Your task to perform on an android device: toggle notification dots Image 0: 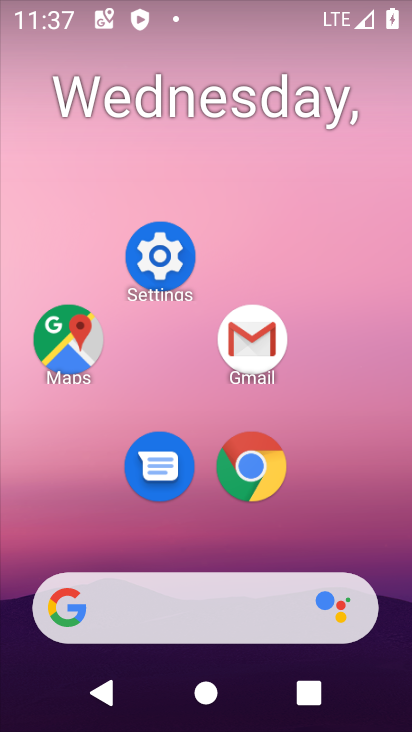
Step 0: drag from (201, 465) to (306, 731)
Your task to perform on an android device: toggle notification dots Image 1: 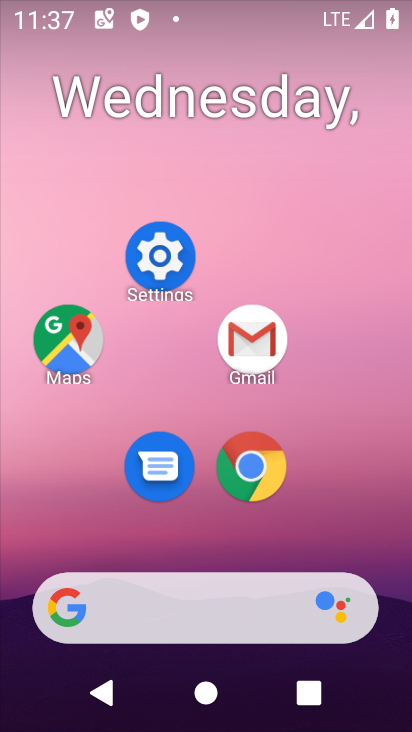
Step 1: click (151, 252)
Your task to perform on an android device: toggle notification dots Image 2: 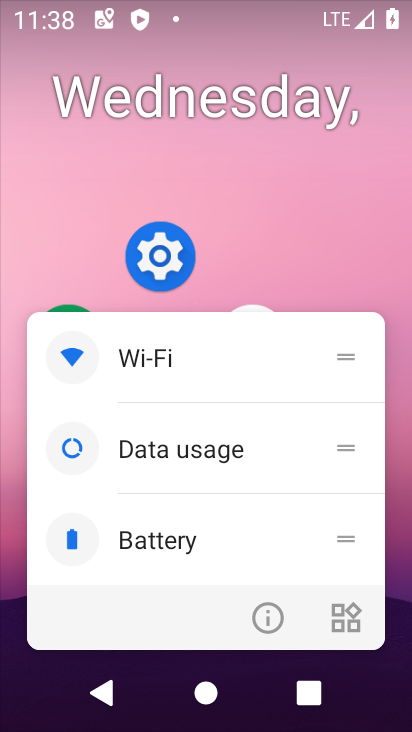
Step 2: click (266, 600)
Your task to perform on an android device: toggle notification dots Image 3: 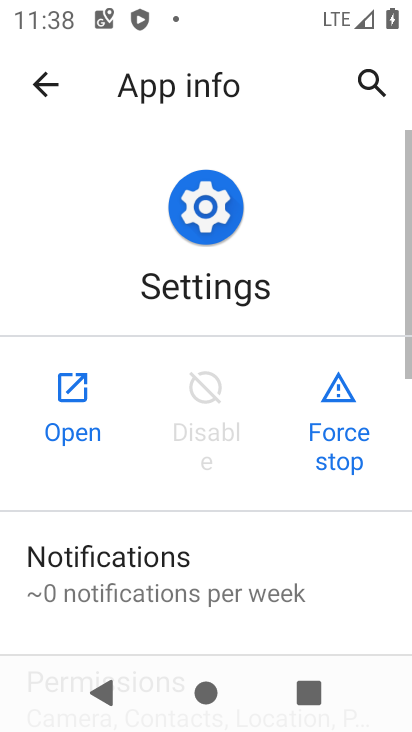
Step 3: click (58, 387)
Your task to perform on an android device: toggle notification dots Image 4: 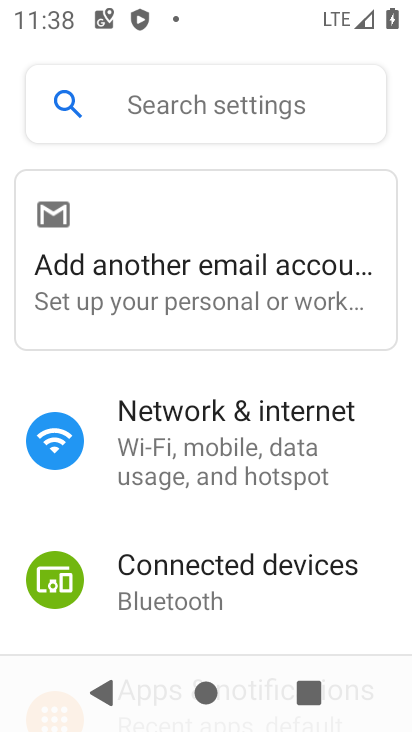
Step 4: drag from (238, 595) to (253, 88)
Your task to perform on an android device: toggle notification dots Image 5: 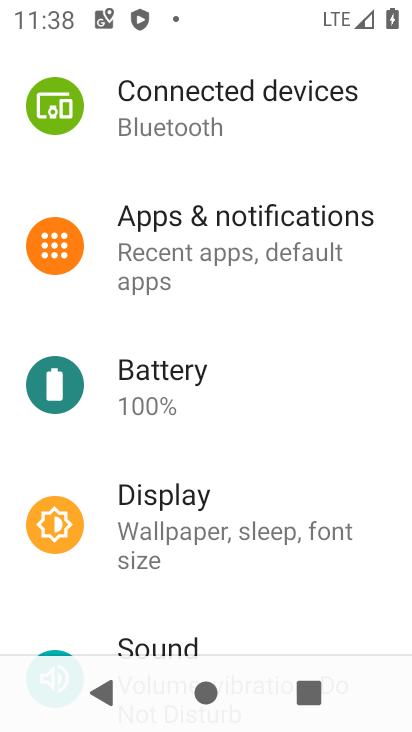
Step 5: drag from (236, 174) to (241, 490)
Your task to perform on an android device: toggle notification dots Image 6: 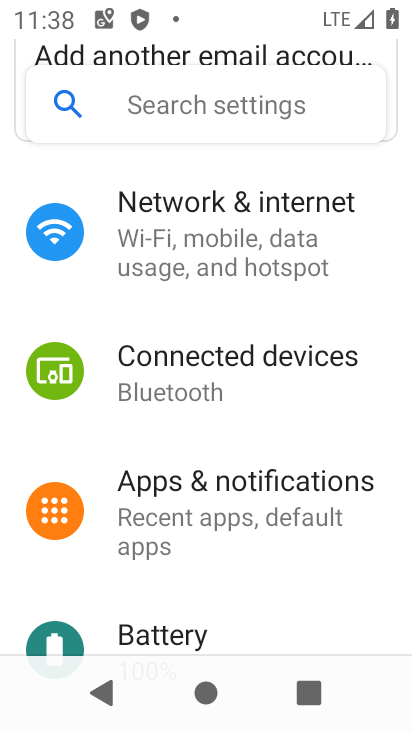
Step 6: click (233, 476)
Your task to perform on an android device: toggle notification dots Image 7: 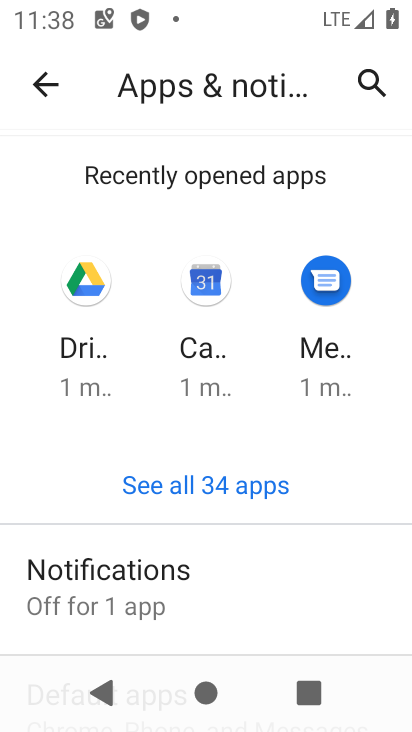
Step 7: drag from (183, 293) to (226, 656)
Your task to perform on an android device: toggle notification dots Image 8: 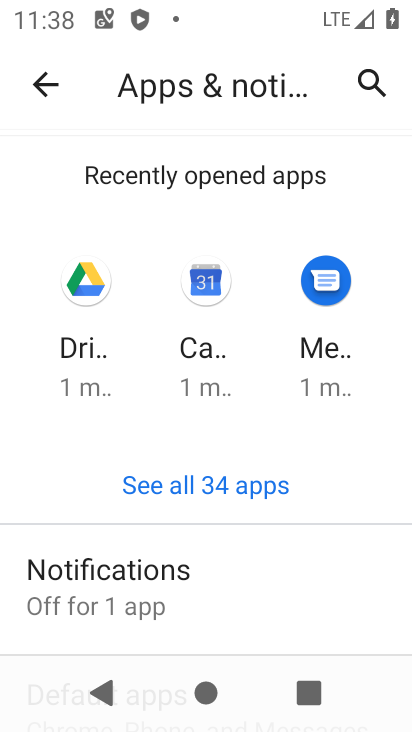
Step 8: click (44, 94)
Your task to perform on an android device: toggle notification dots Image 9: 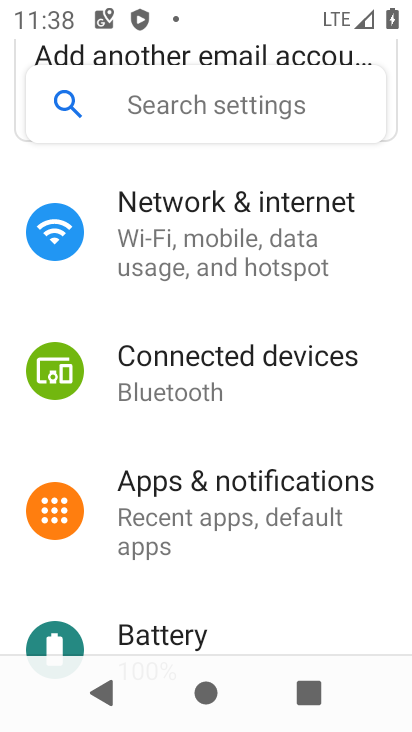
Step 9: drag from (255, 595) to (264, 463)
Your task to perform on an android device: toggle notification dots Image 10: 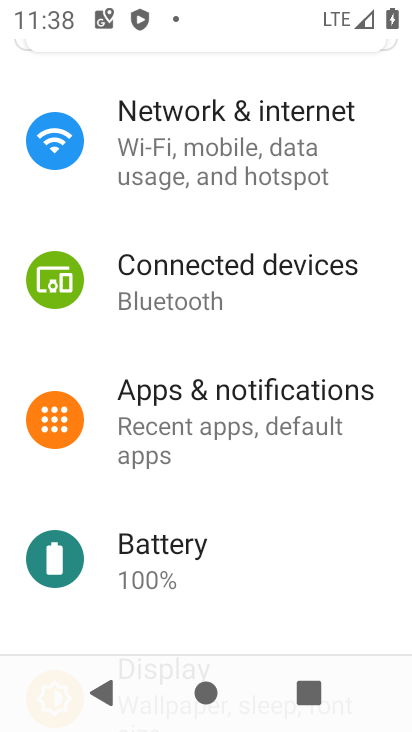
Step 10: click (240, 419)
Your task to perform on an android device: toggle notification dots Image 11: 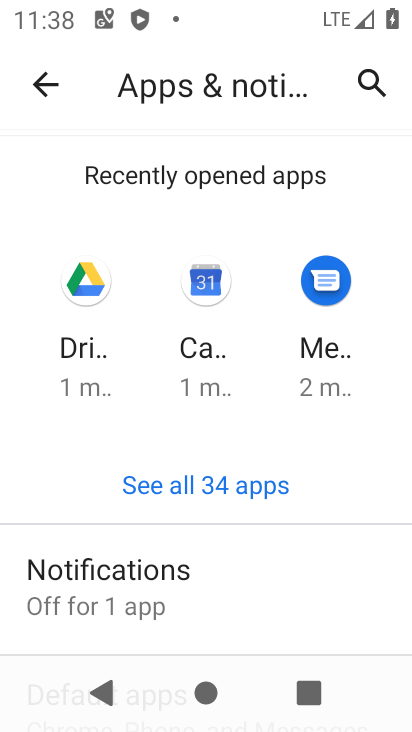
Step 11: click (205, 573)
Your task to perform on an android device: toggle notification dots Image 12: 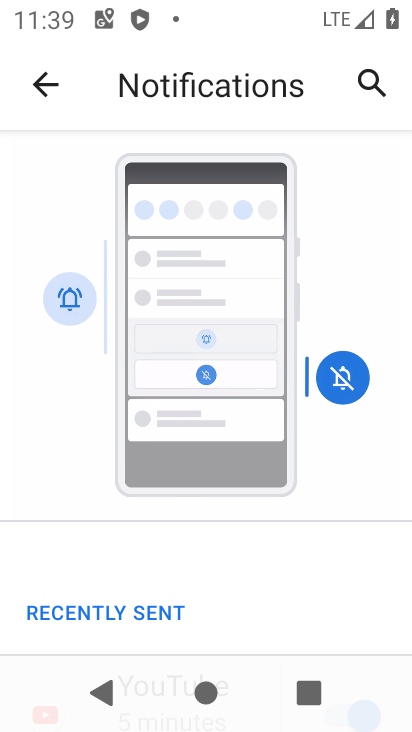
Step 12: drag from (213, 575) to (300, 22)
Your task to perform on an android device: toggle notification dots Image 13: 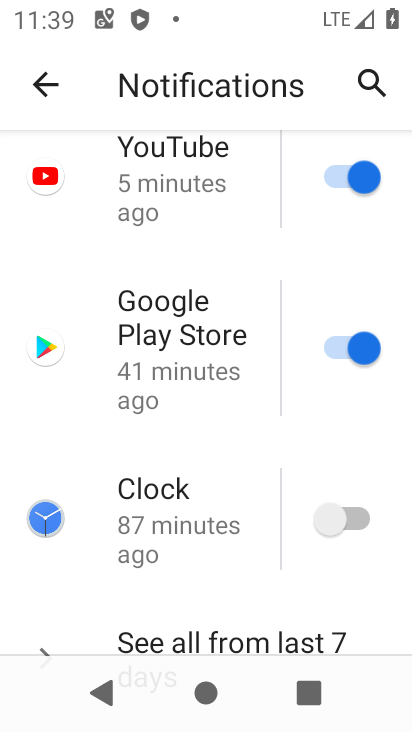
Step 13: drag from (203, 616) to (276, 129)
Your task to perform on an android device: toggle notification dots Image 14: 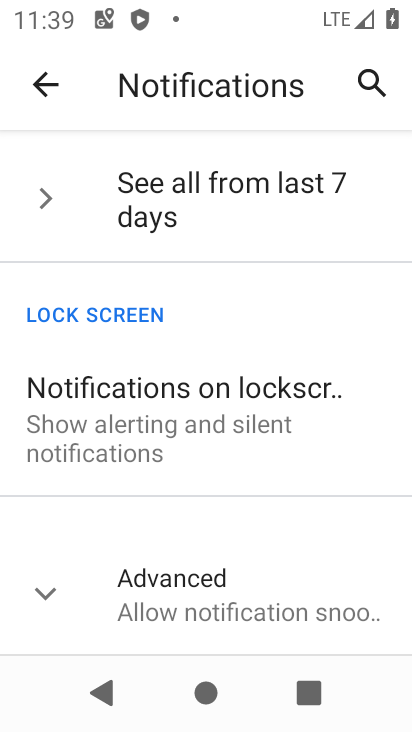
Step 14: click (171, 610)
Your task to perform on an android device: toggle notification dots Image 15: 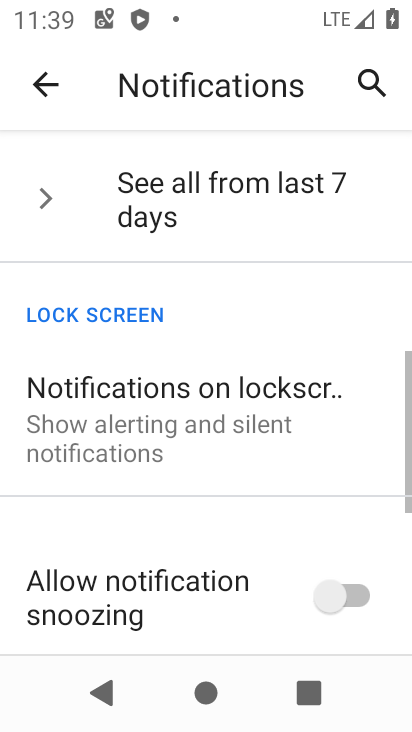
Step 15: drag from (184, 591) to (283, 110)
Your task to perform on an android device: toggle notification dots Image 16: 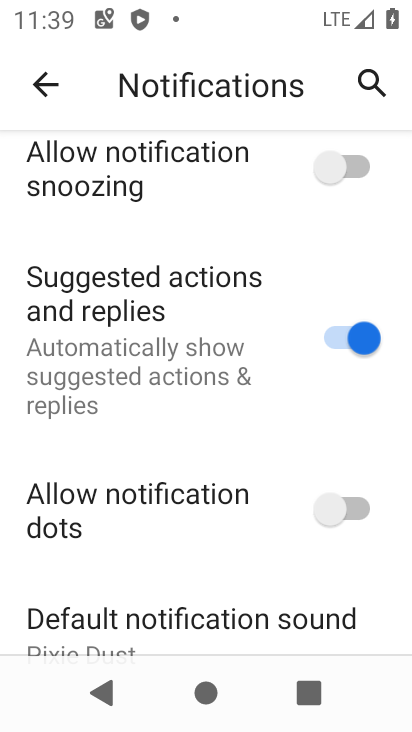
Step 16: click (312, 521)
Your task to perform on an android device: toggle notification dots Image 17: 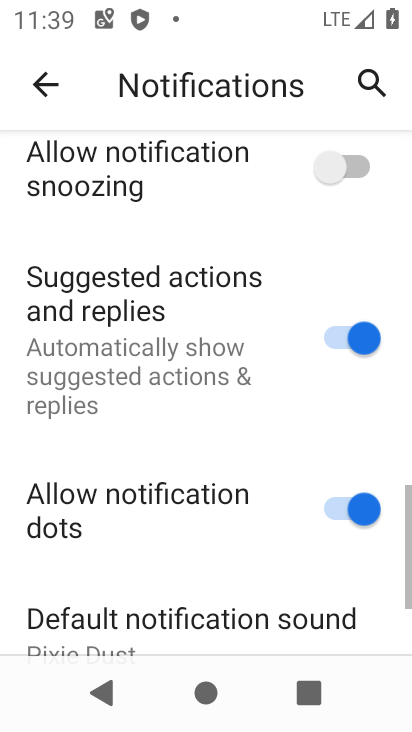
Step 17: task complete